Your task to perform on an android device: open device folders in google photos Image 0: 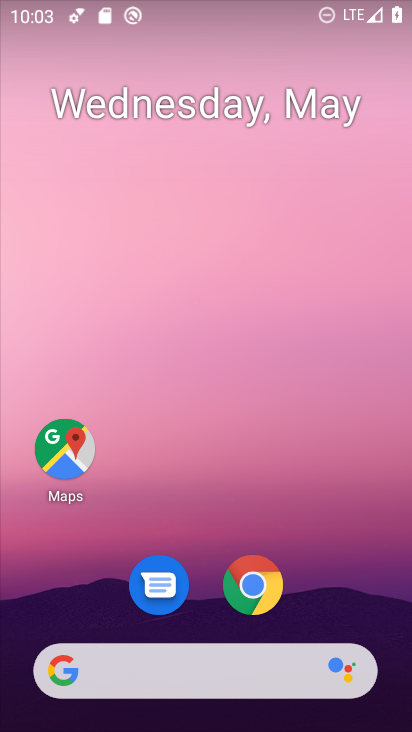
Step 0: drag from (323, 604) to (235, 28)
Your task to perform on an android device: open device folders in google photos Image 1: 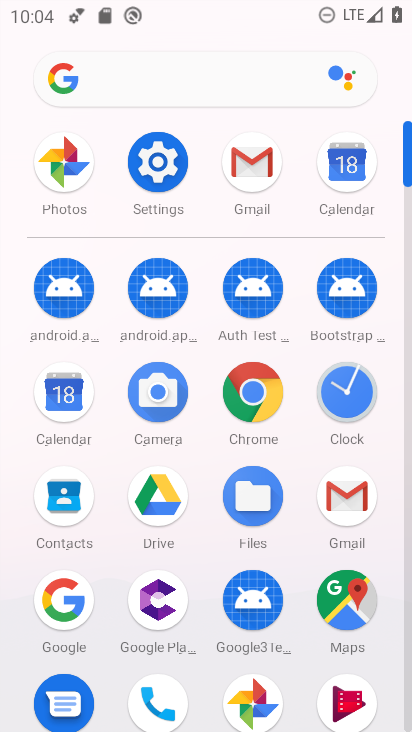
Step 1: click (74, 150)
Your task to perform on an android device: open device folders in google photos Image 2: 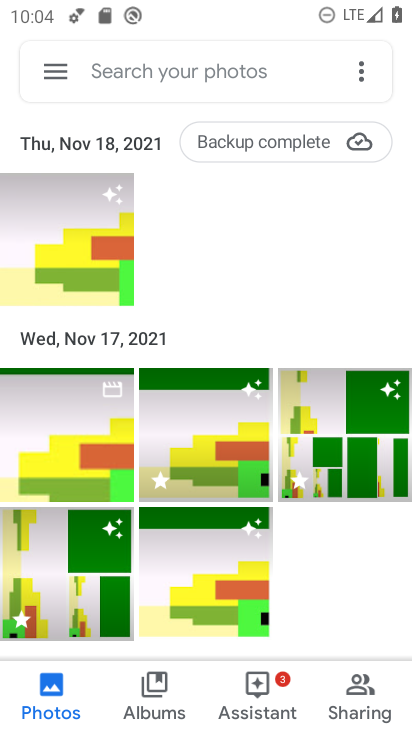
Step 2: click (62, 68)
Your task to perform on an android device: open device folders in google photos Image 3: 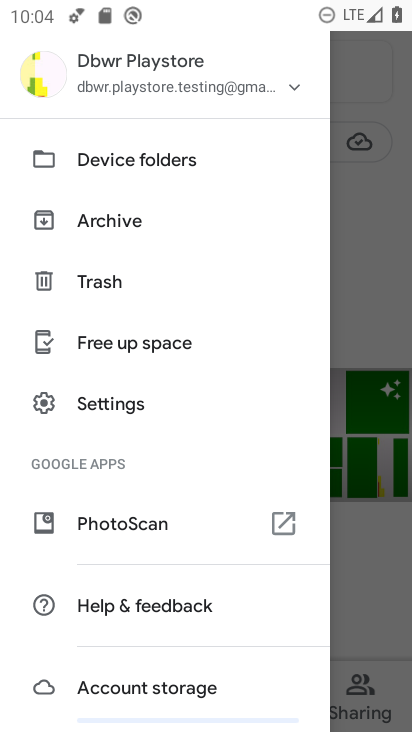
Step 3: click (90, 157)
Your task to perform on an android device: open device folders in google photos Image 4: 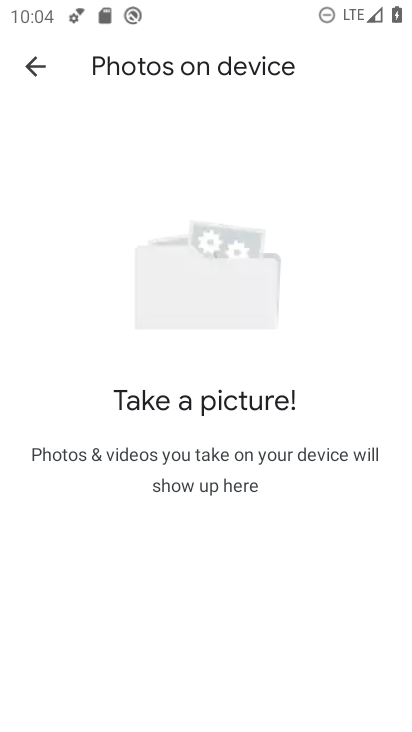
Step 4: task complete